Your task to perform on an android device: turn pop-ups on in chrome Image 0: 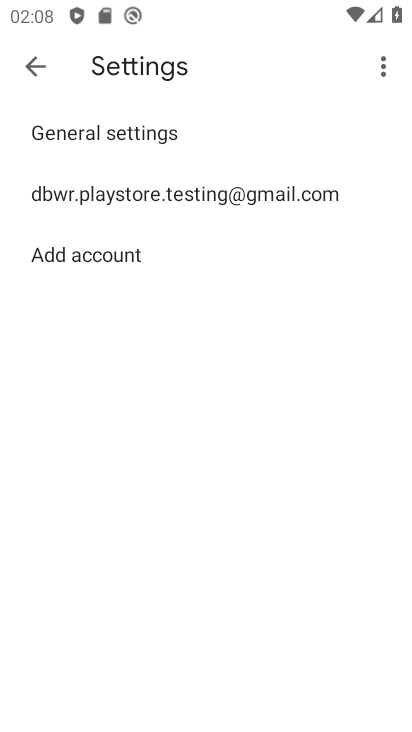
Step 0: press home button
Your task to perform on an android device: turn pop-ups on in chrome Image 1: 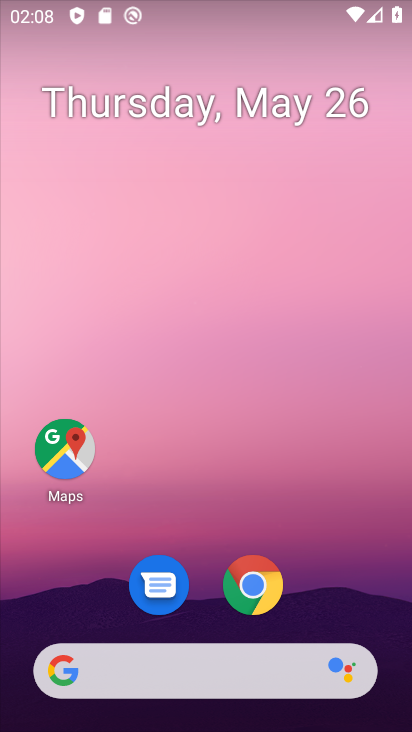
Step 1: click (262, 584)
Your task to perform on an android device: turn pop-ups on in chrome Image 2: 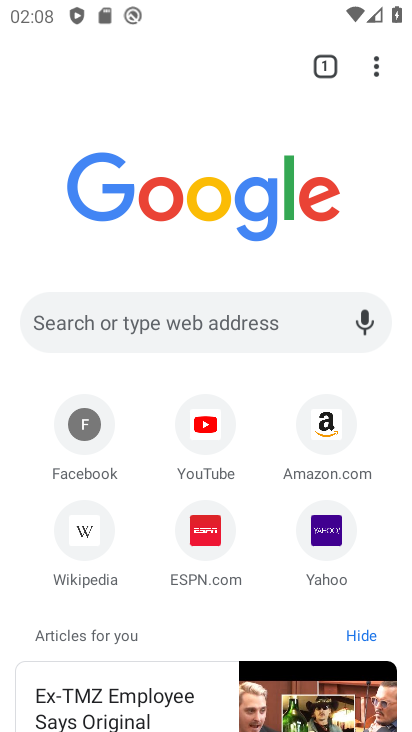
Step 2: click (372, 64)
Your task to perform on an android device: turn pop-ups on in chrome Image 3: 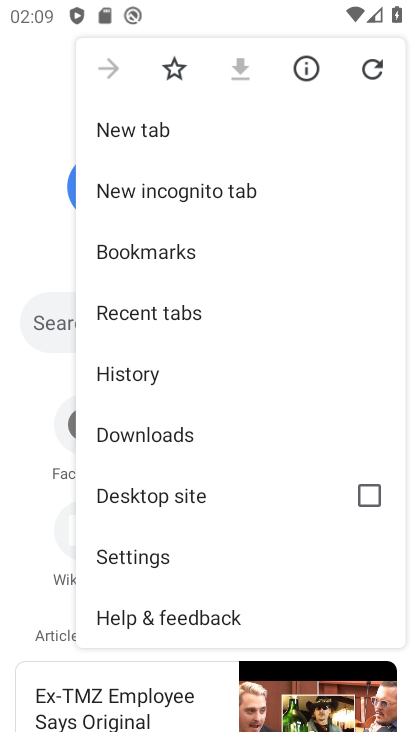
Step 3: click (154, 549)
Your task to perform on an android device: turn pop-ups on in chrome Image 4: 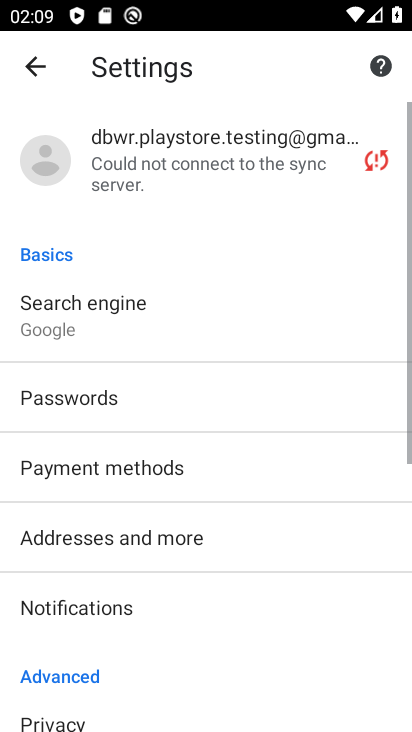
Step 4: drag from (211, 616) to (253, 246)
Your task to perform on an android device: turn pop-ups on in chrome Image 5: 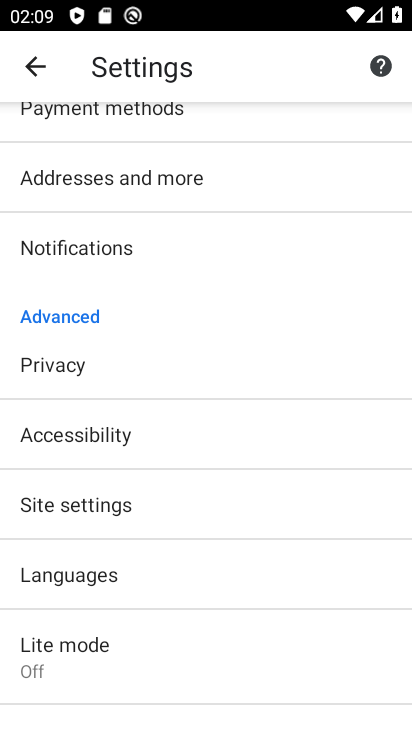
Step 5: click (126, 500)
Your task to perform on an android device: turn pop-ups on in chrome Image 6: 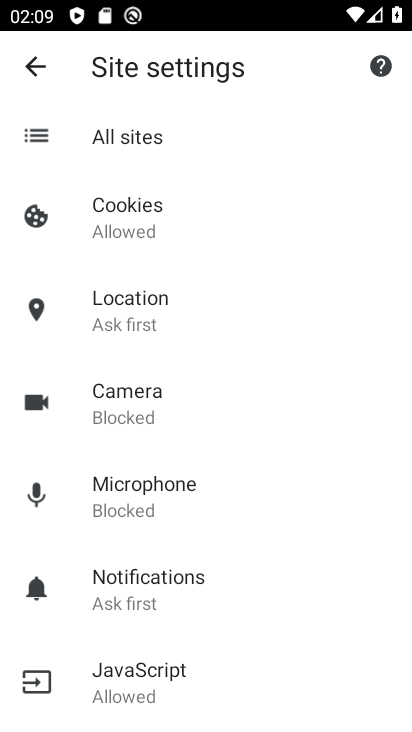
Step 6: drag from (222, 568) to (261, 331)
Your task to perform on an android device: turn pop-ups on in chrome Image 7: 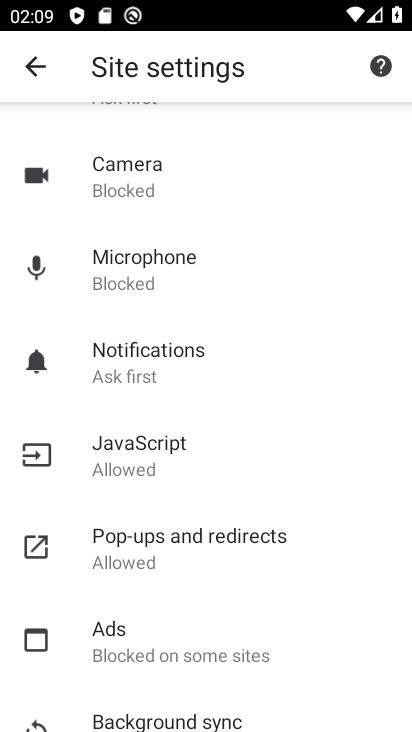
Step 7: click (214, 536)
Your task to perform on an android device: turn pop-ups on in chrome Image 8: 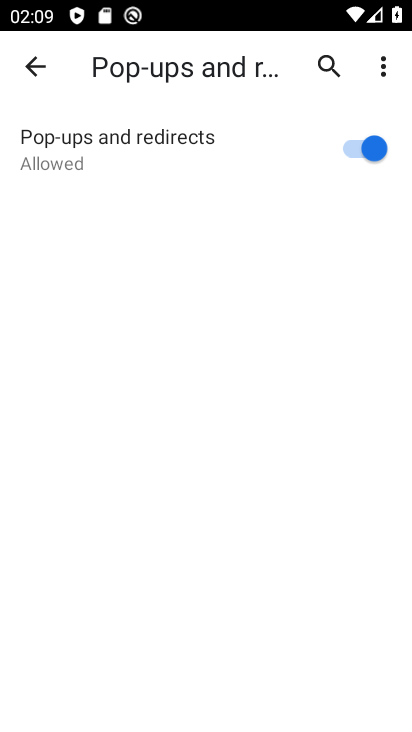
Step 8: task complete